Your task to perform on an android device: Add "bose quietcomfort 35" to the cart on newegg.com, then select checkout. Image 0: 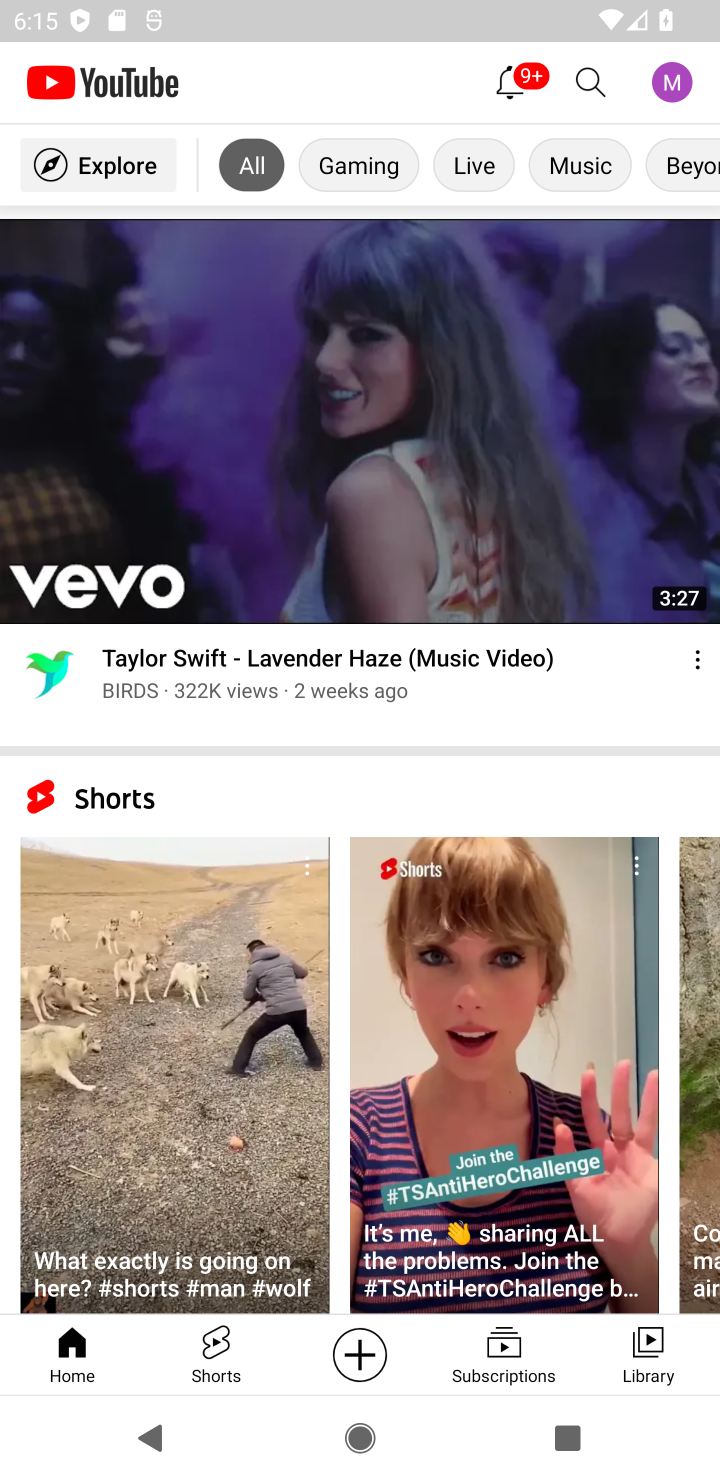
Step 0: press home button
Your task to perform on an android device: Add "bose quietcomfort 35" to the cart on newegg.com, then select checkout. Image 1: 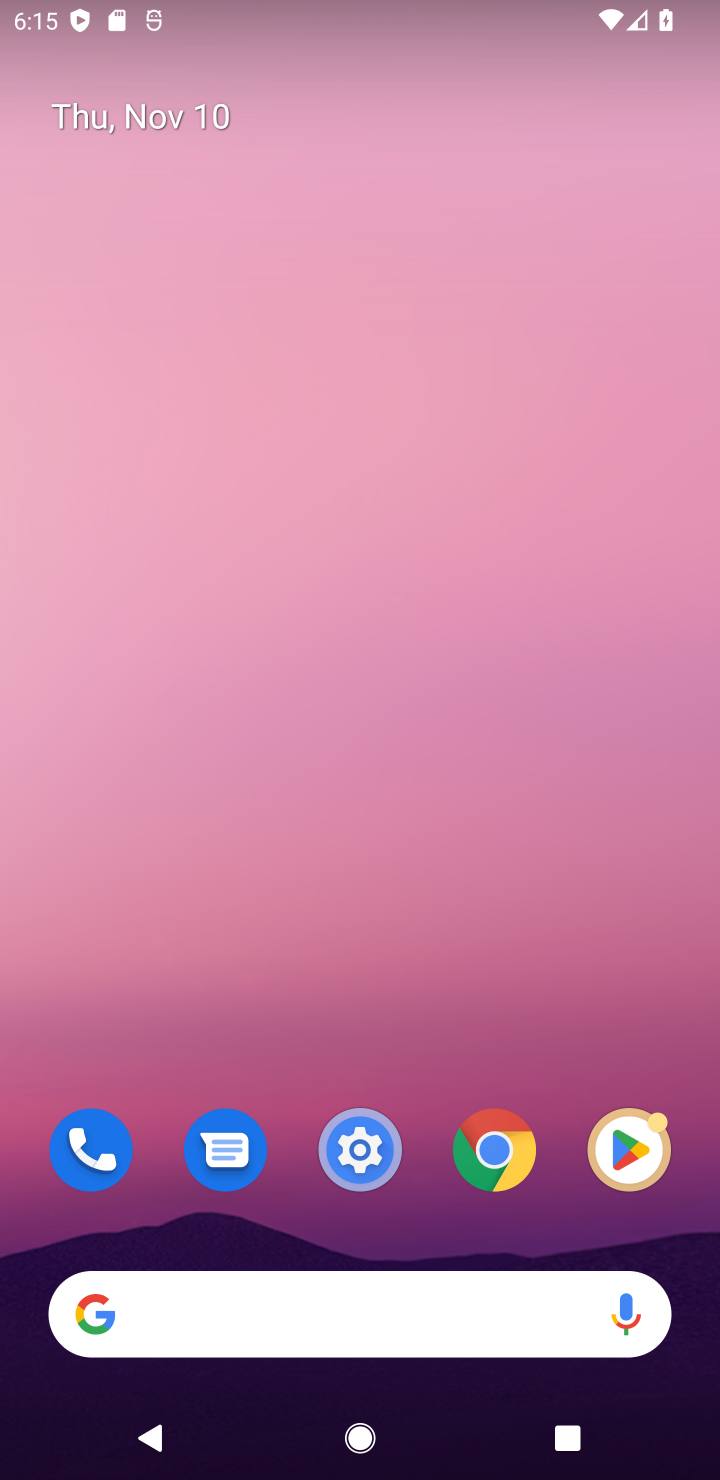
Step 1: click (520, 1144)
Your task to perform on an android device: Add "bose quietcomfort 35" to the cart on newegg.com, then select checkout. Image 2: 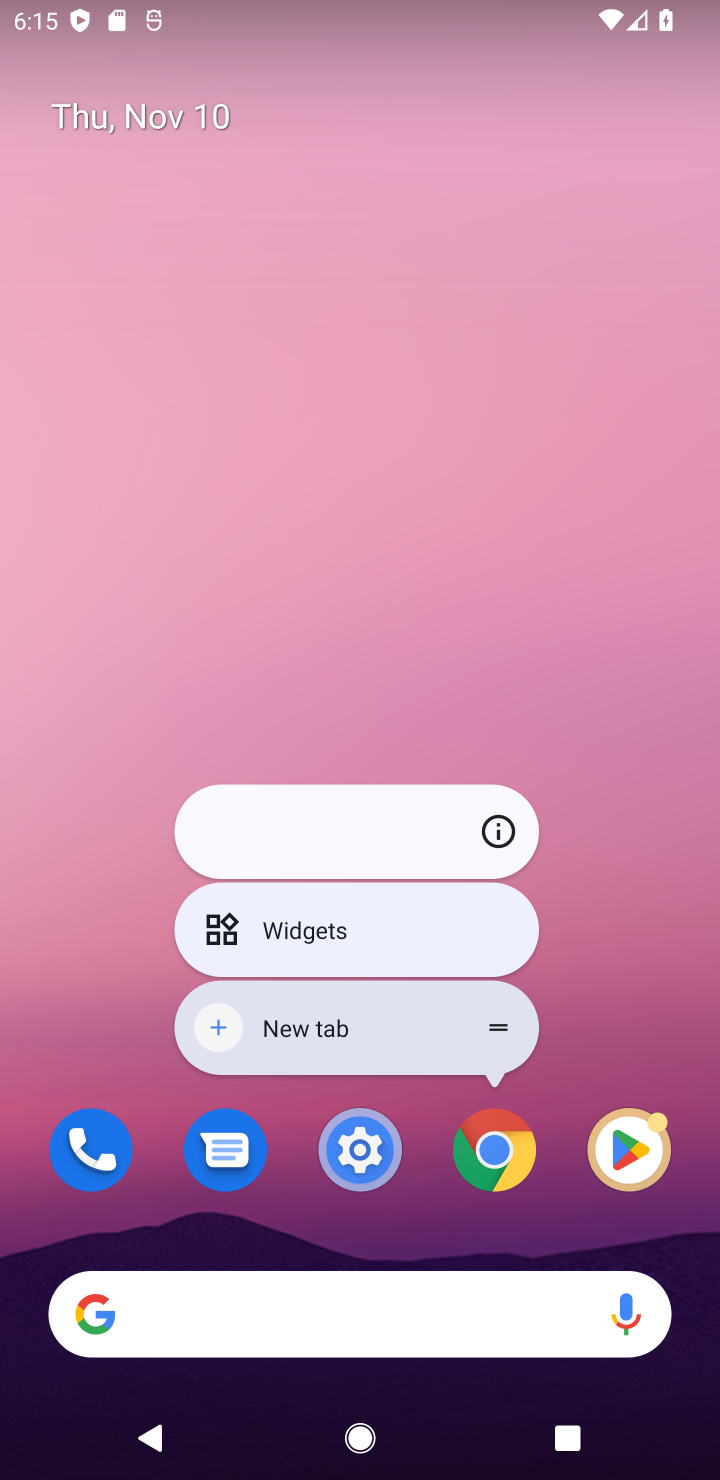
Step 2: click (493, 1151)
Your task to perform on an android device: Add "bose quietcomfort 35" to the cart on newegg.com, then select checkout. Image 3: 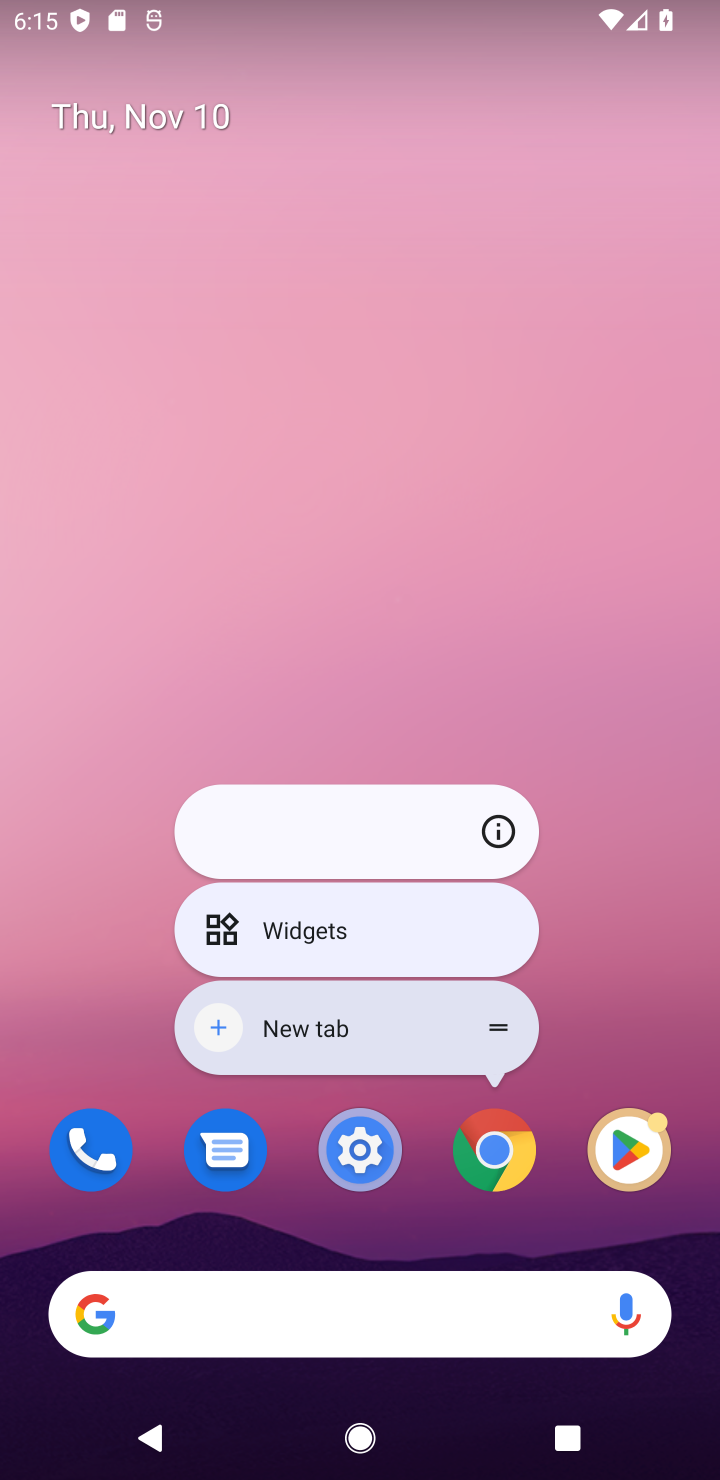
Step 3: click (493, 1153)
Your task to perform on an android device: Add "bose quietcomfort 35" to the cart on newegg.com, then select checkout. Image 4: 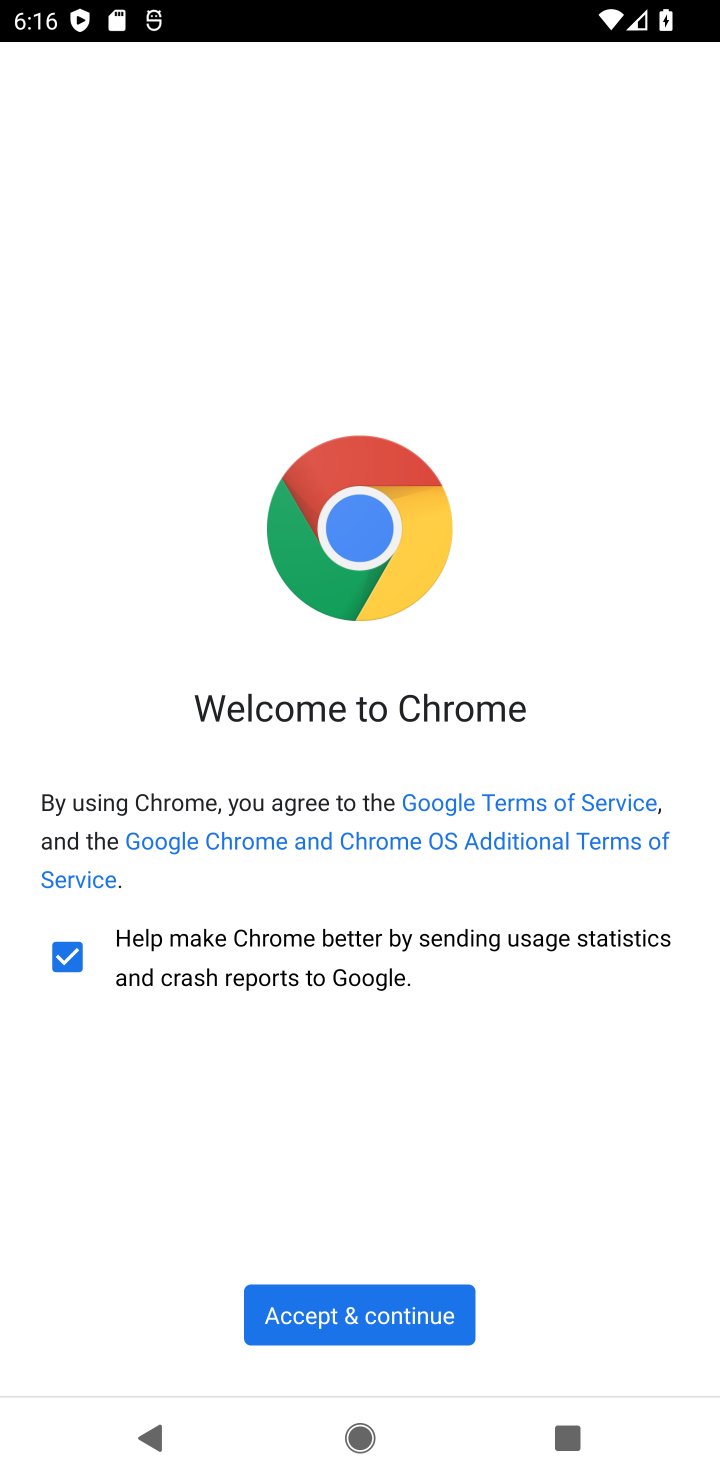
Step 4: click (426, 1313)
Your task to perform on an android device: Add "bose quietcomfort 35" to the cart on newegg.com, then select checkout. Image 5: 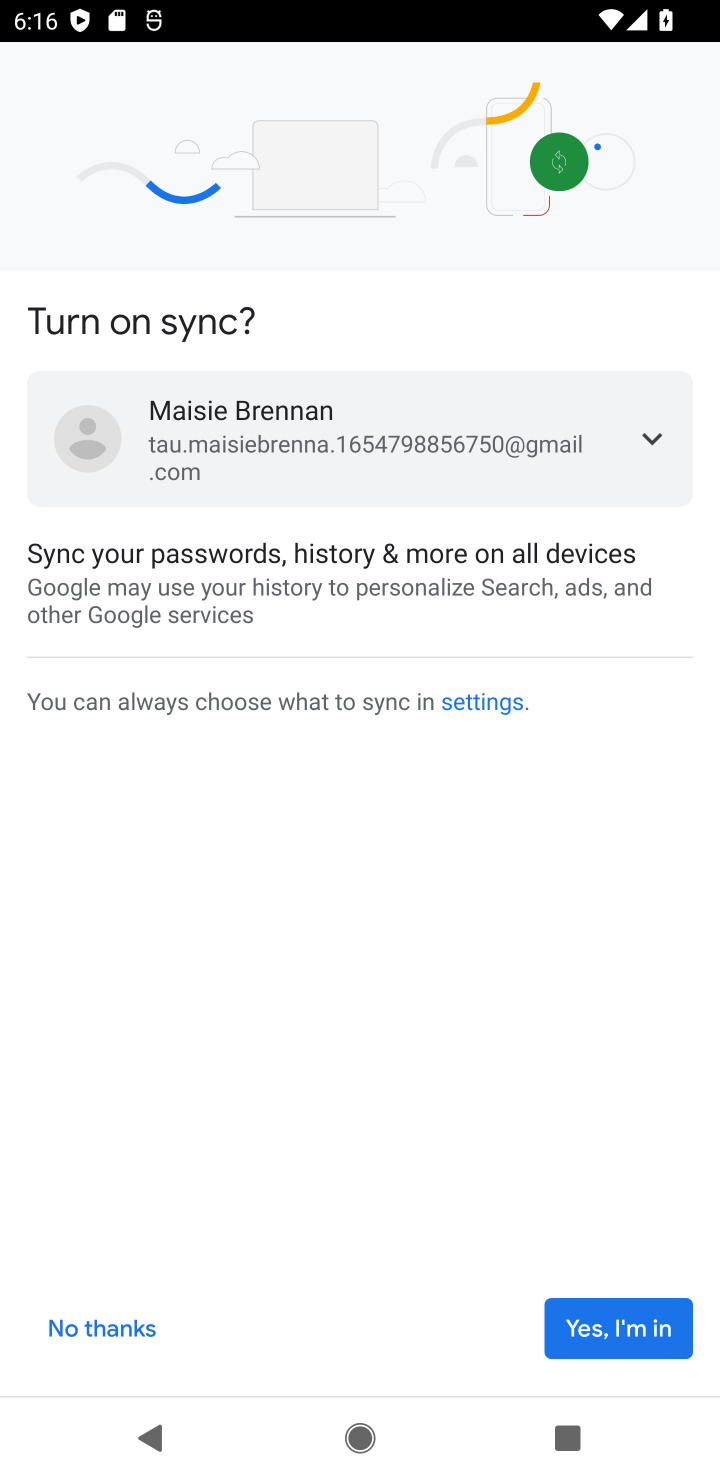
Step 5: click (635, 1326)
Your task to perform on an android device: Add "bose quietcomfort 35" to the cart on newegg.com, then select checkout. Image 6: 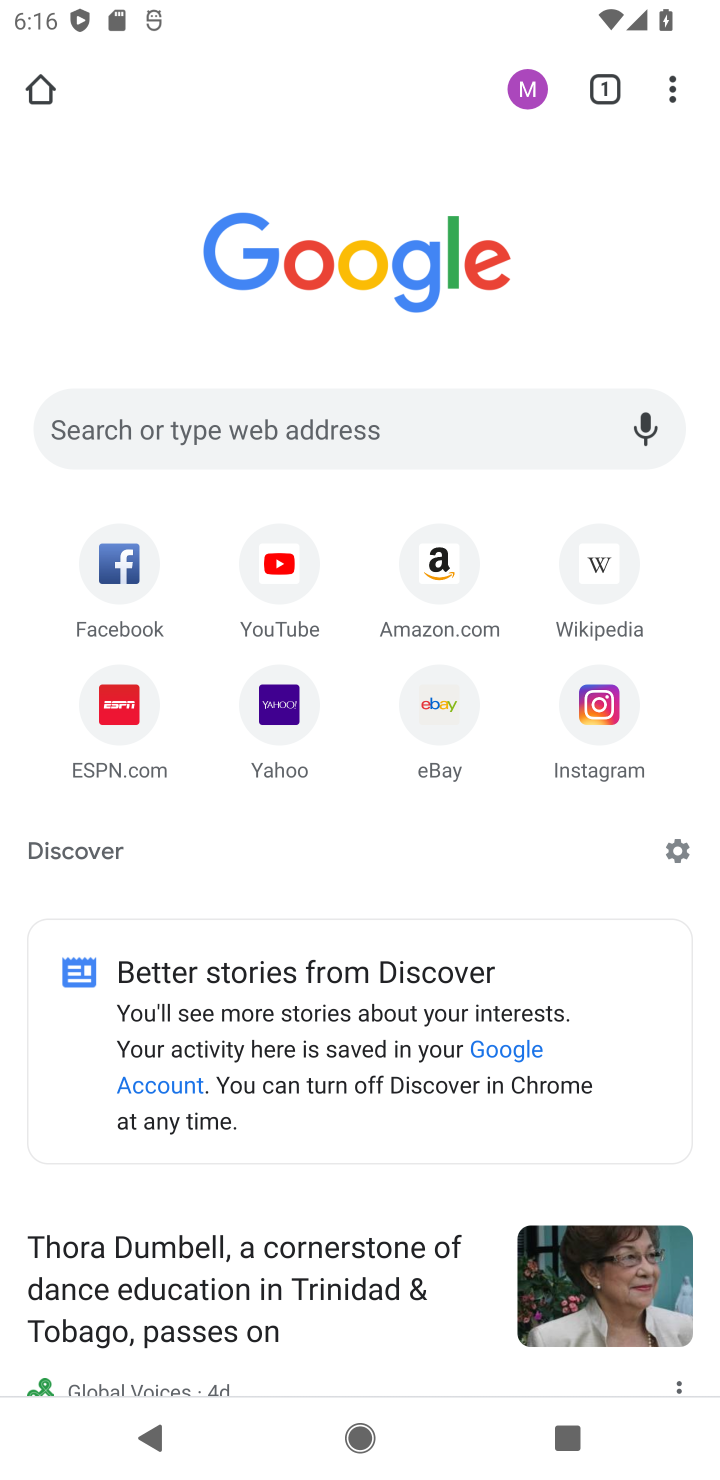
Step 6: click (214, 422)
Your task to perform on an android device: Add "bose quietcomfort 35" to the cart on newegg.com, then select checkout. Image 7: 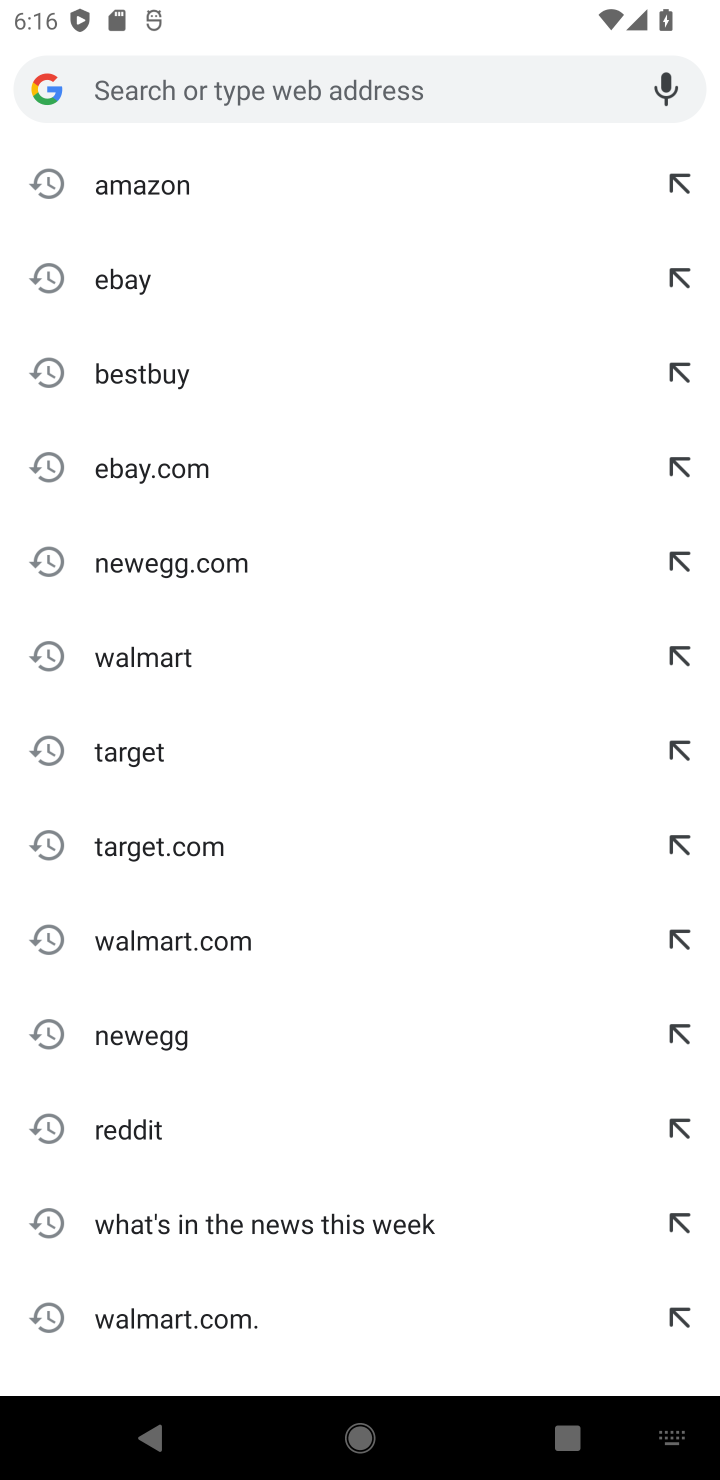
Step 7: click (134, 560)
Your task to perform on an android device: Add "bose quietcomfort 35" to the cart on newegg.com, then select checkout. Image 8: 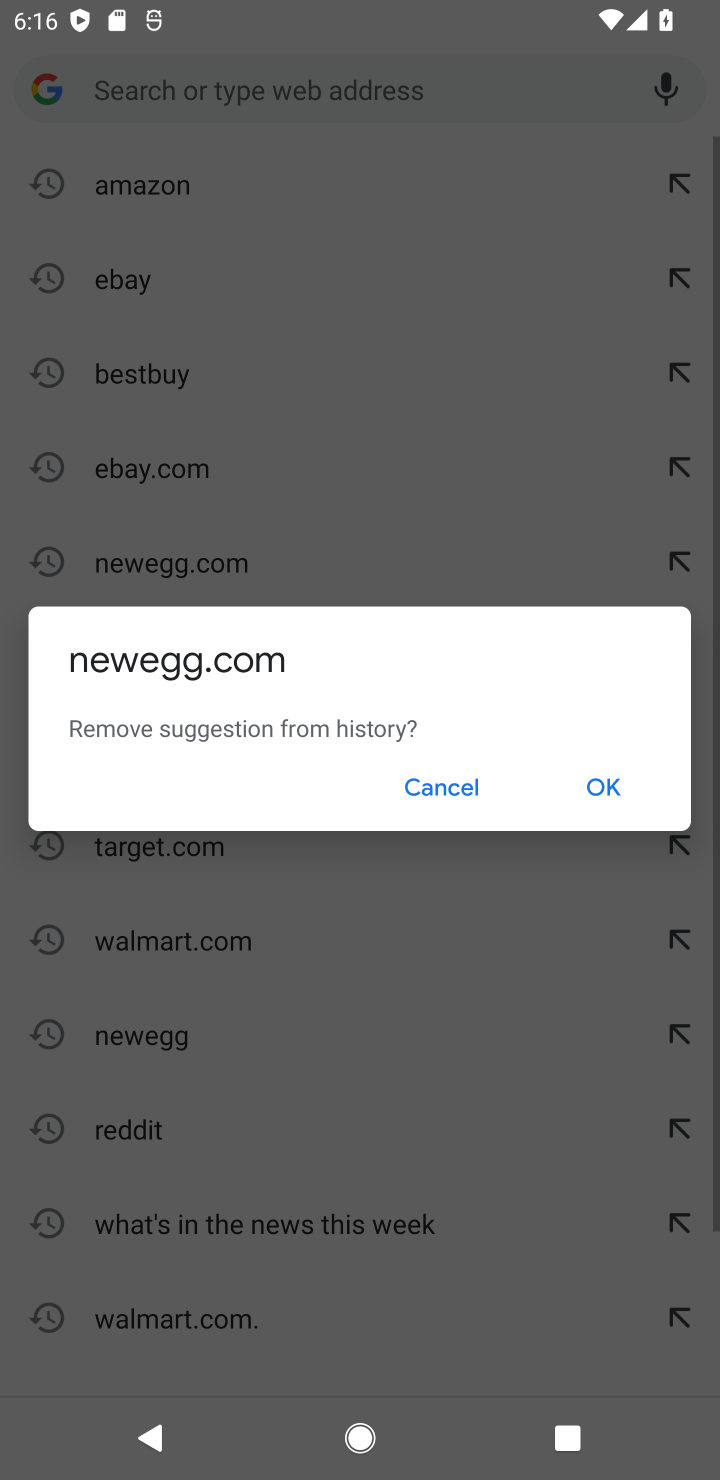
Step 8: click (126, 569)
Your task to perform on an android device: Add "bose quietcomfort 35" to the cart on newegg.com, then select checkout. Image 9: 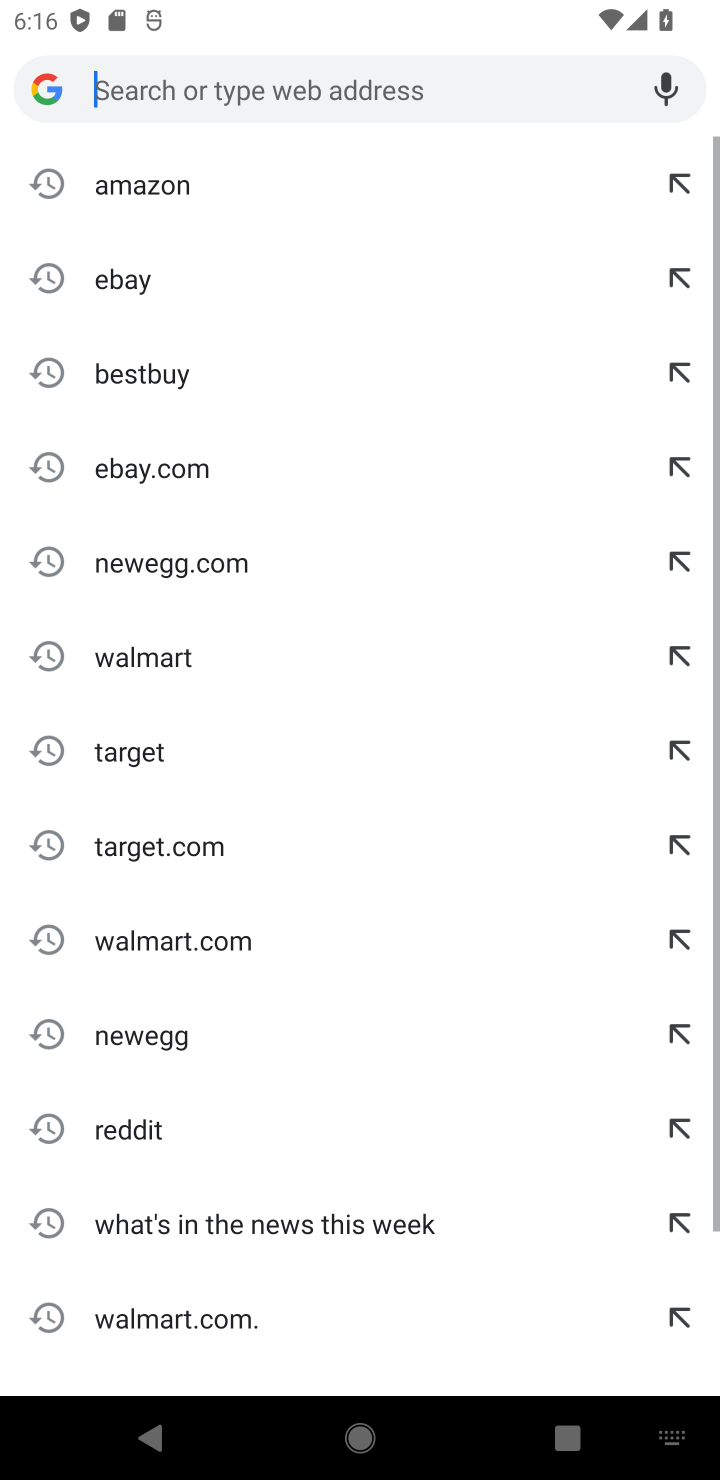
Step 9: click (112, 567)
Your task to perform on an android device: Add "bose quietcomfort 35" to the cart on newegg.com, then select checkout. Image 10: 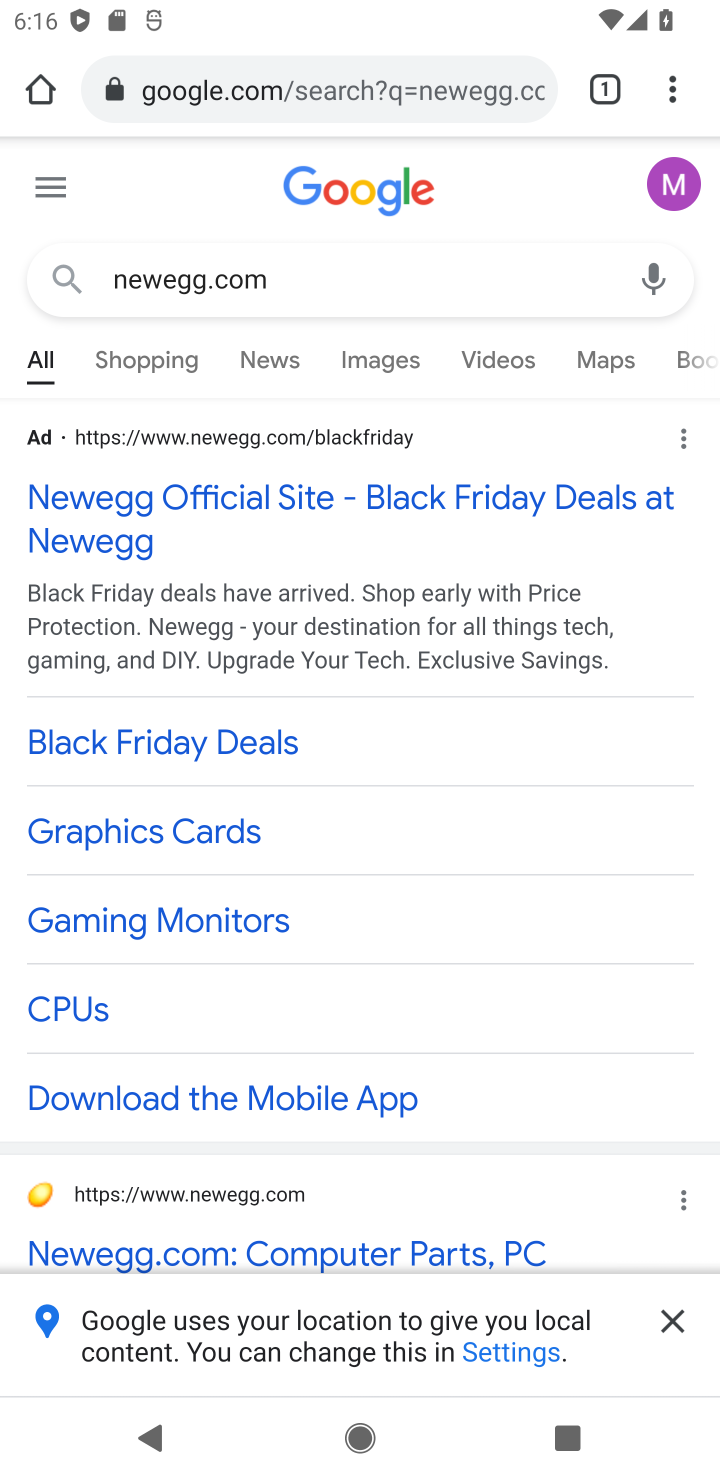
Step 10: click (182, 496)
Your task to perform on an android device: Add "bose quietcomfort 35" to the cart on newegg.com, then select checkout. Image 11: 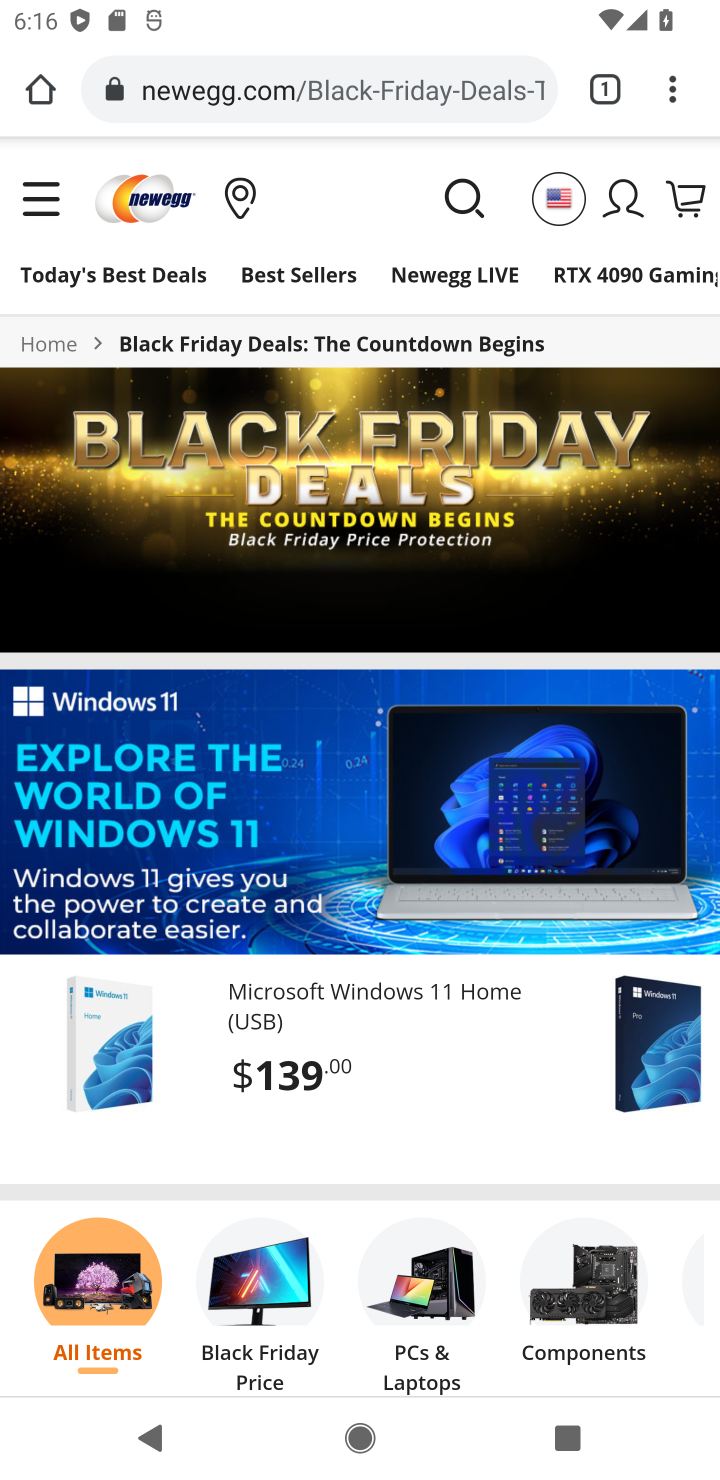
Step 11: click (461, 191)
Your task to perform on an android device: Add "bose quietcomfort 35" to the cart on newegg.com, then select checkout. Image 12: 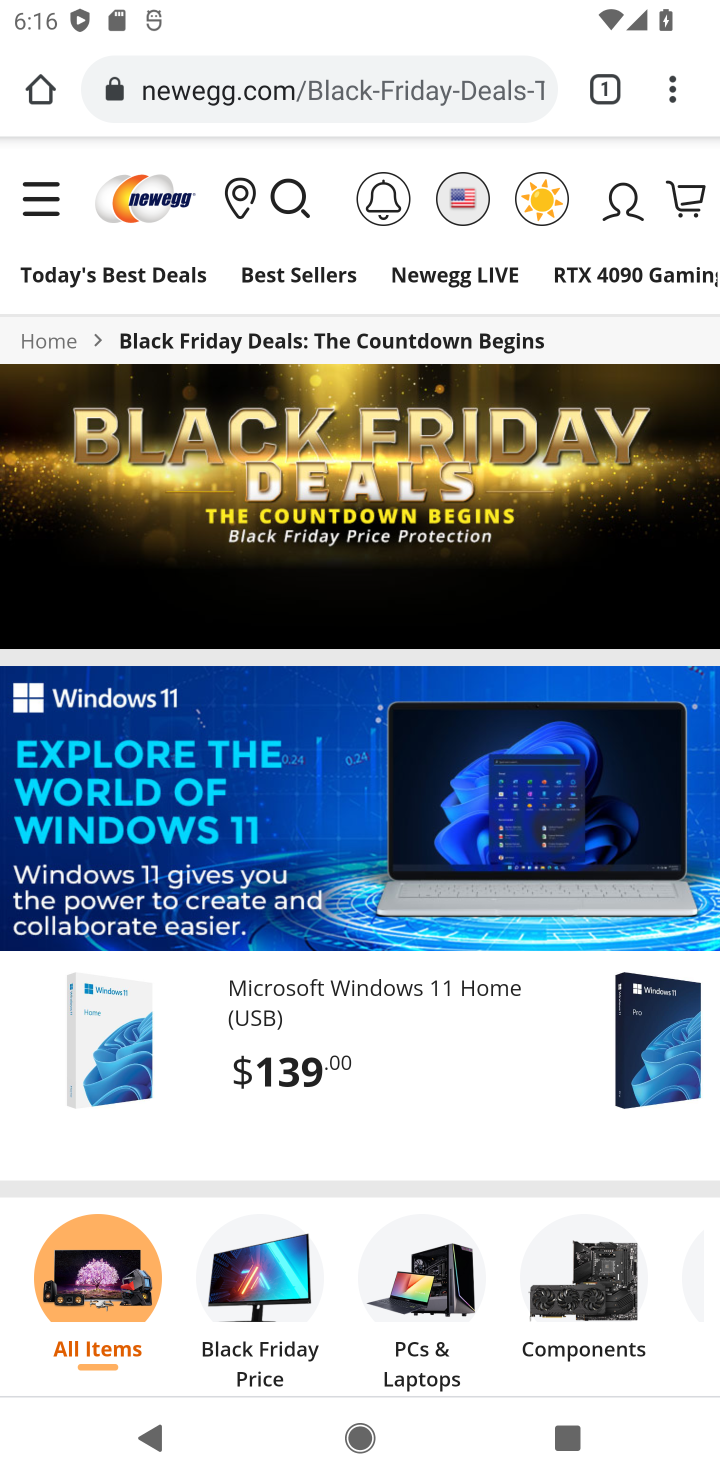
Step 12: click (282, 187)
Your task to perform on an android device: Add "bose quietcomfort 35" to the cart on newegg.com, then select checkout. Image 13: 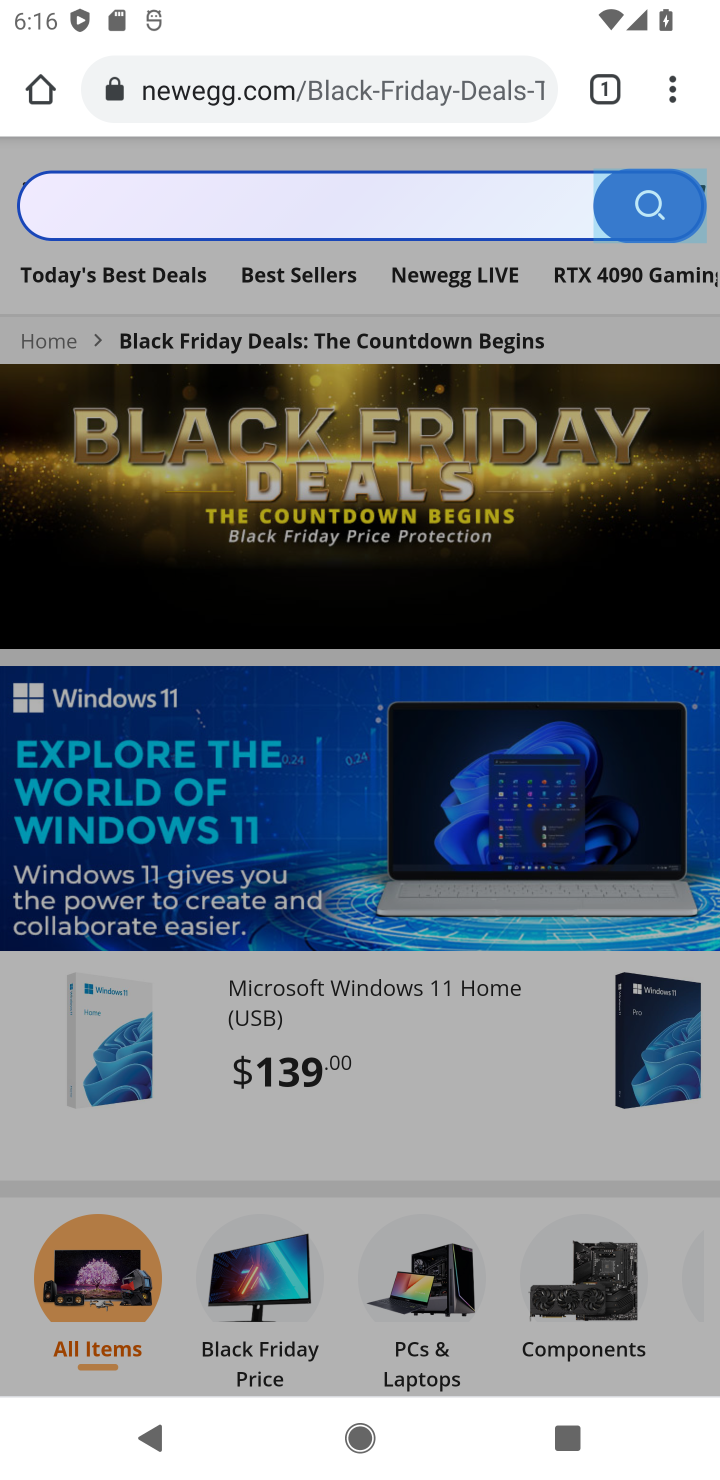
Step 13: click (250, 195)
Your task to perform on an android device: Add "bose quietcomfort 35" to the cart on newegg.com, then select checkout. Image 14: 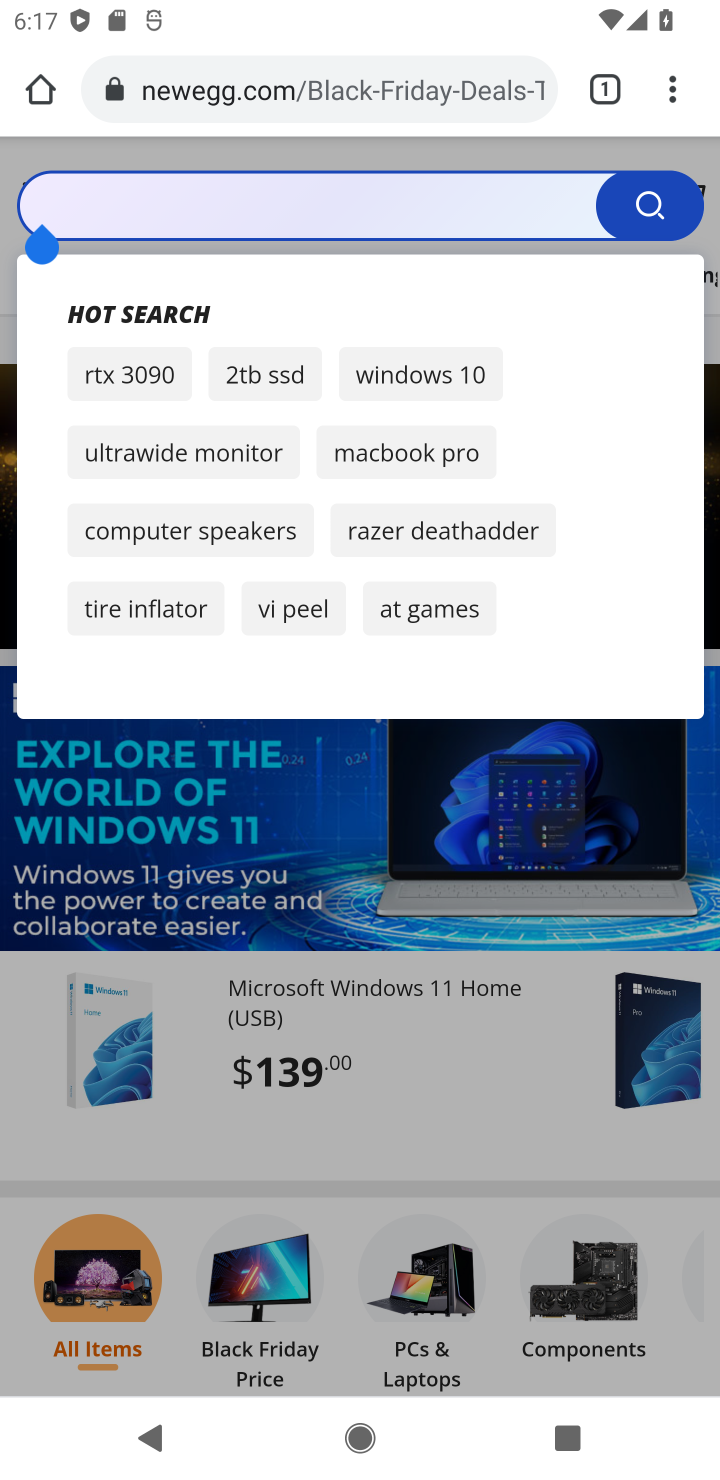
Step 14: click (80, 192)
Your task to perform on an android device: Add "bose quietcomfort 35" to the cart on newegg.com, then select checkout. Image 15: 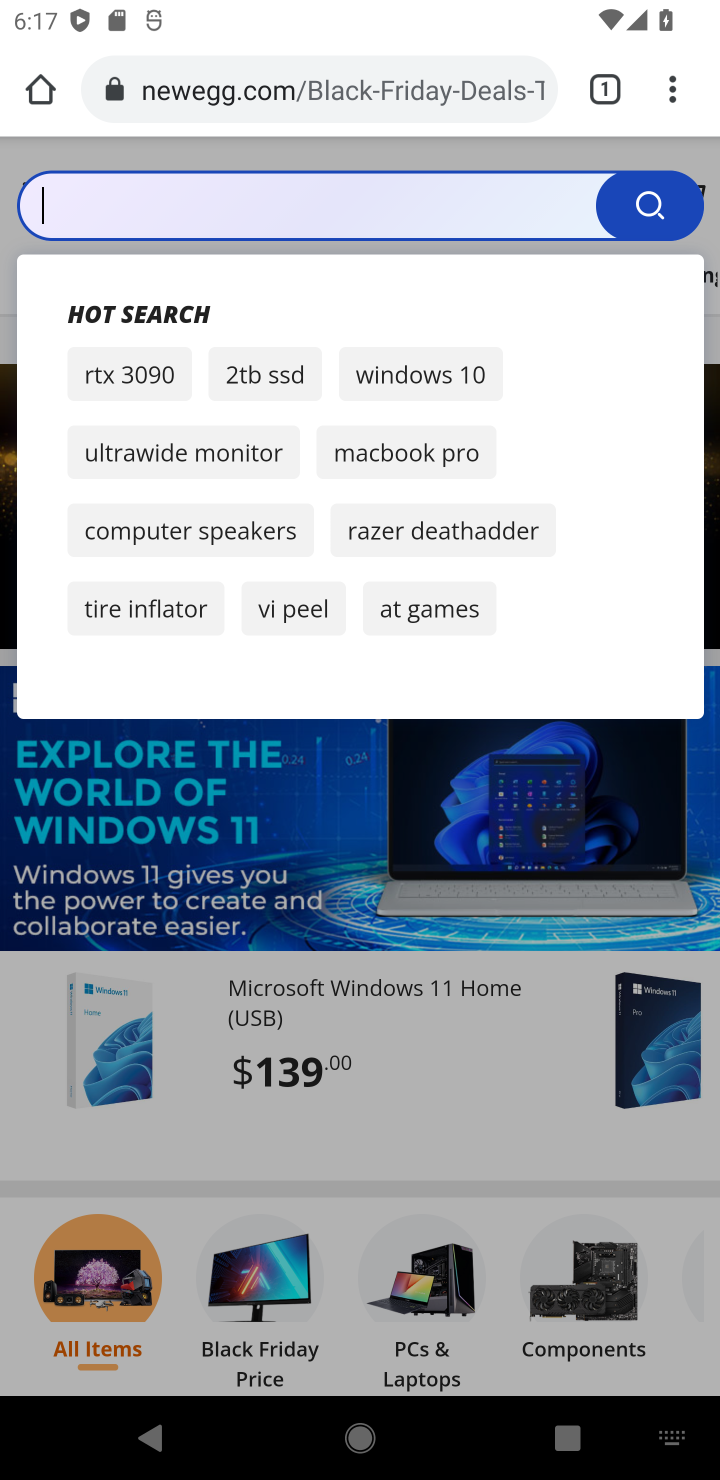
Step 15: type "bose quietcomfort 35"
Your task to perform on an android device: Add "bose quietcomfort 35" to the cart on newegg.com, then select checkout. Image 16: 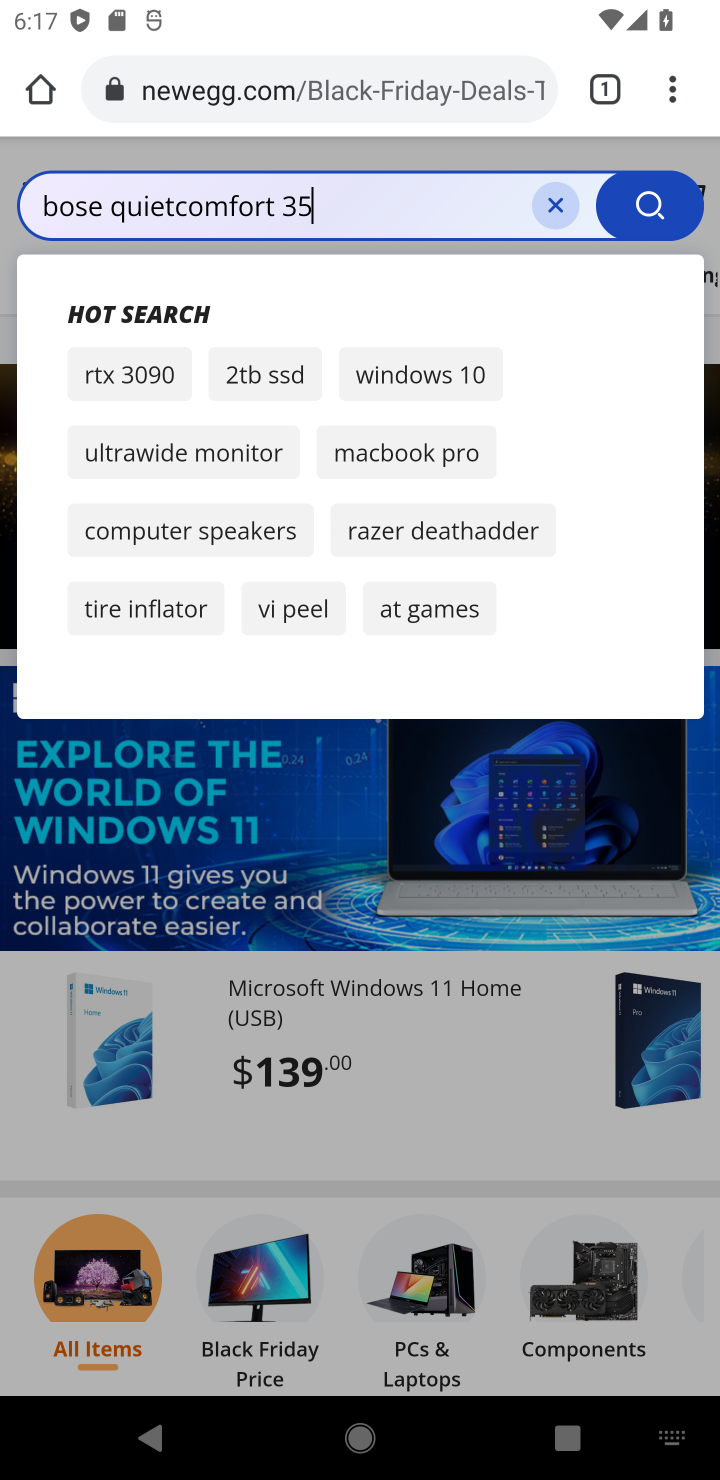
Step 16: press enter
Your task to perform on an android device: Add "bose quietcomfort 35" to the cart on newegg.com, then select checkout. Image 17: 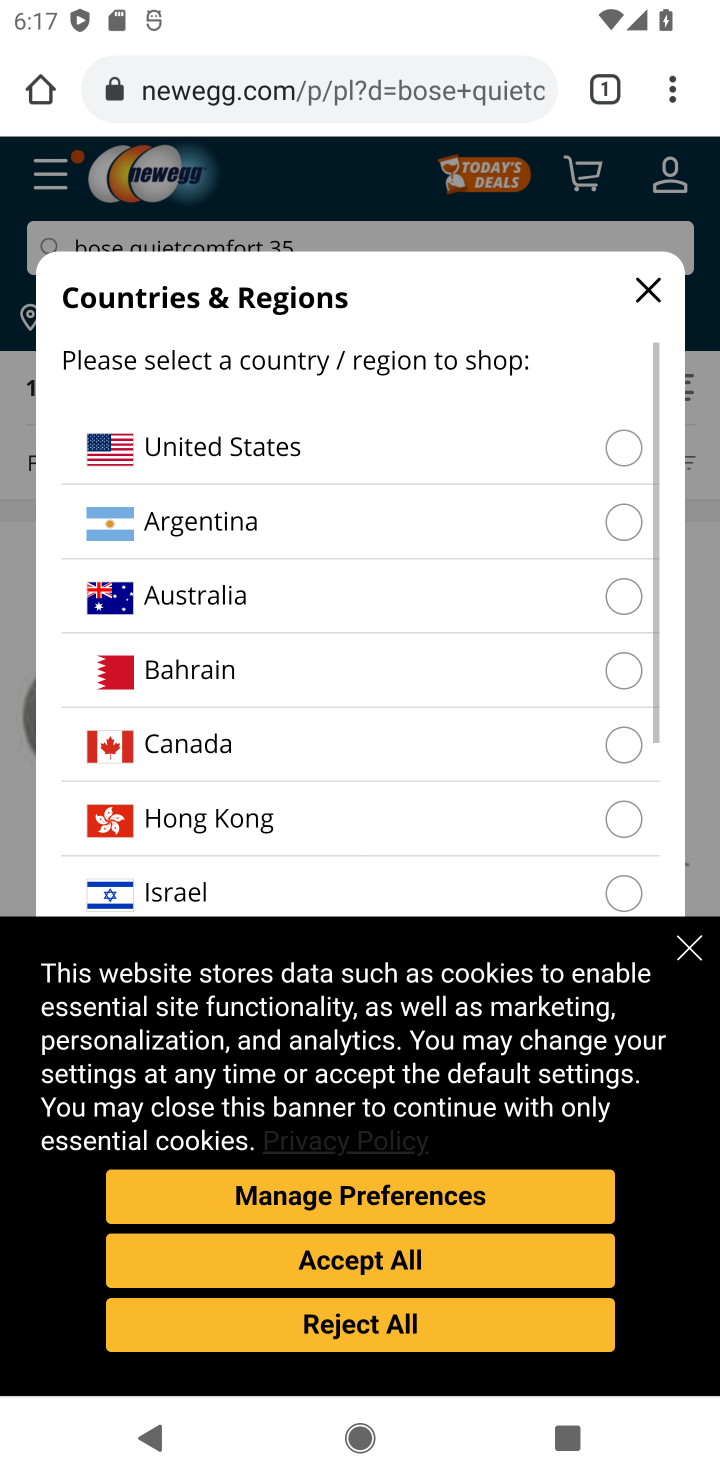
Step 17: click (696, 945)
Your task to perform on an android device: Add "bose quietcomfort 35" to the cart on newegg.com, then select checkout. Image 18: 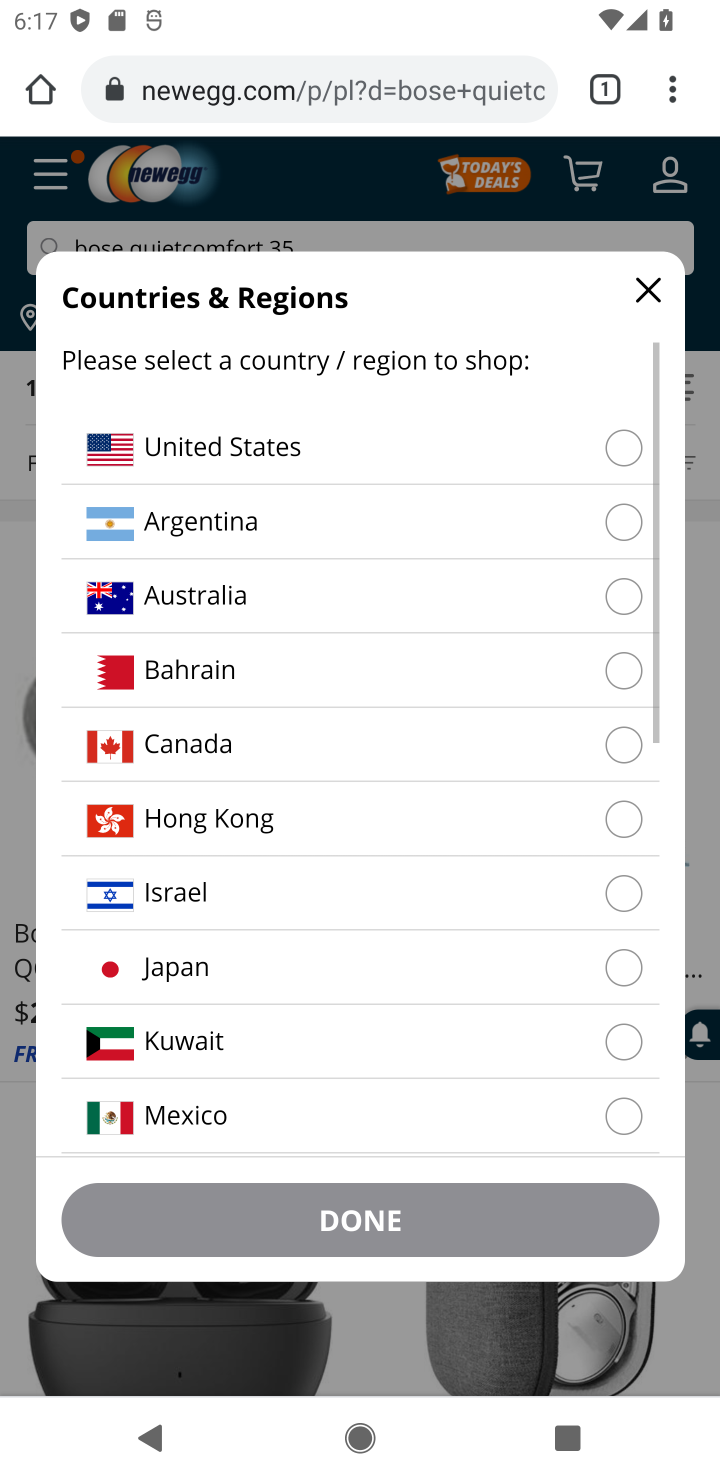
Step 18: click (647, 275)
Your task to perform on an android device: Add "bose quietcomfort 35" to the cart on newegg.com, then select checkout. Image 19: 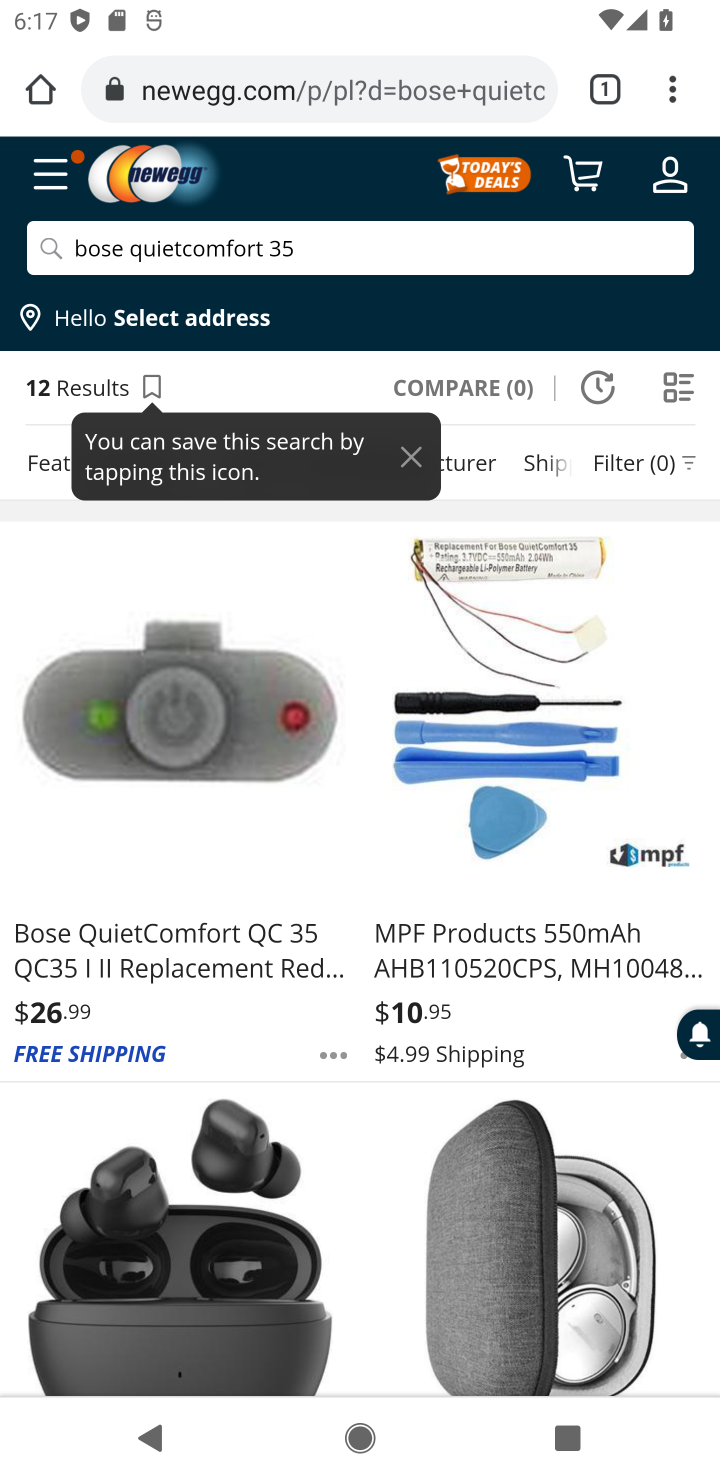
Step 19: task complete